Your task to perform on an android device: check battery use Image 0: 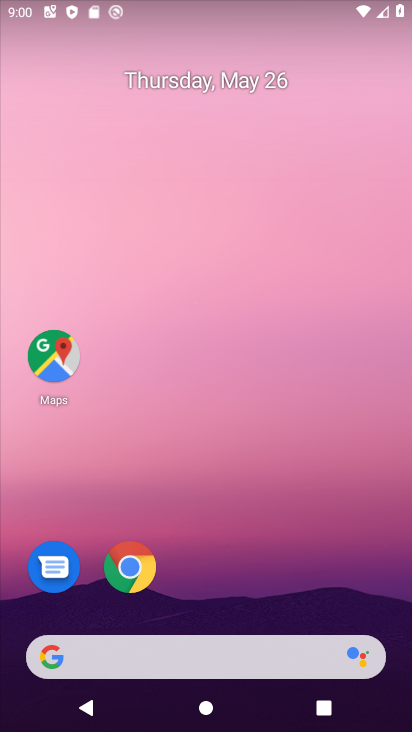
Step 0: press home button
Your task to perform on an android device: check battery use Image 1: 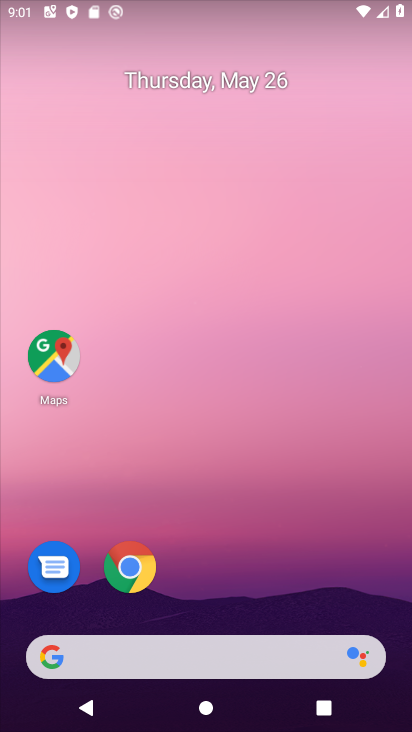
Step 1: drag from (172, 657) to (331, 86)
Your task to perform on an android device: check battery use Image 2: 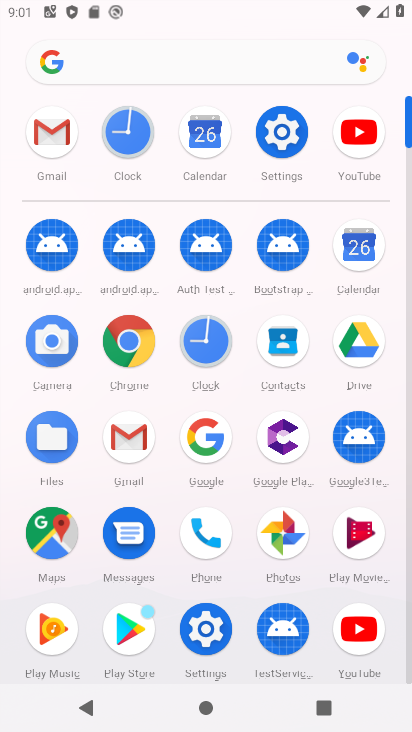
Step 2: click (278, 140)
Your task to perform on an android device: check battery use Image 3: 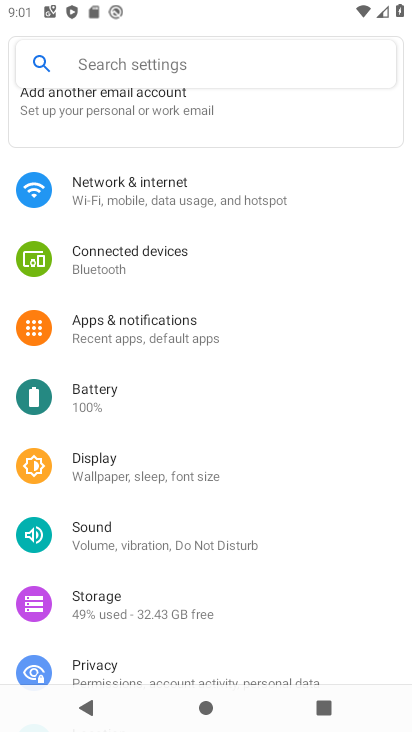
Step 3: click (98, 393)
Your task to perform on an android device: check battery use Image 4: 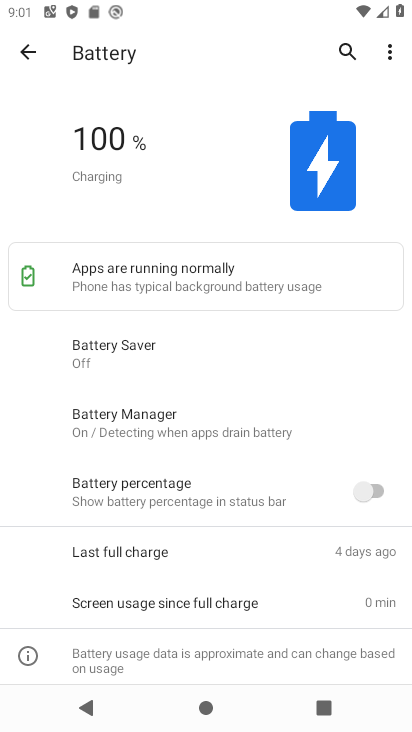
Step 4: click (387, 53)
Your task to perform on an android device: check battery use Image 5: 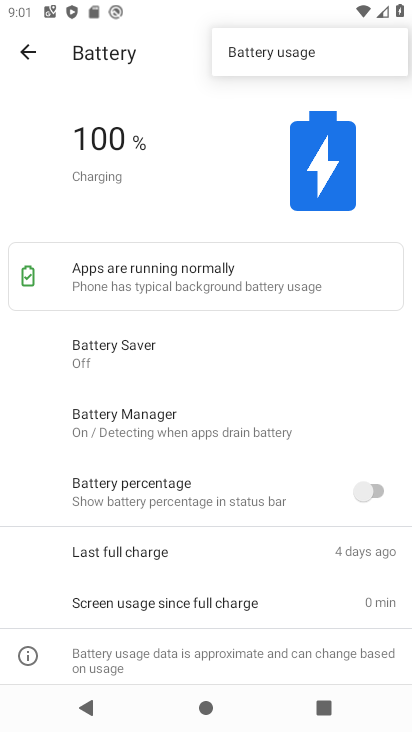
Step 5: click (255, 46)
Your task to perform on an android device: check battery use Image 6: 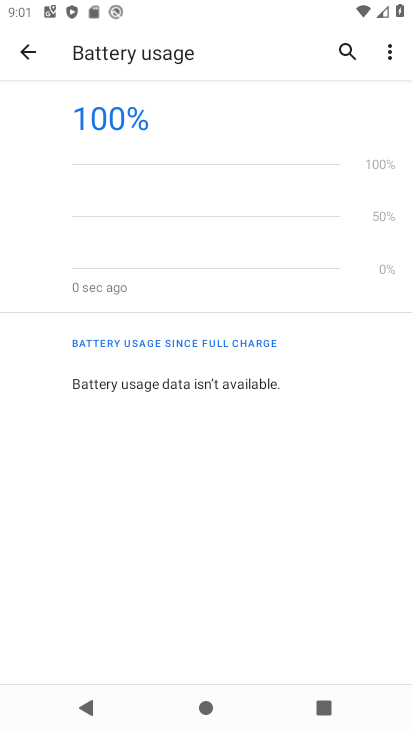
Step 6: task complete